Your task to perform on an android device: set an alarm Image 0: 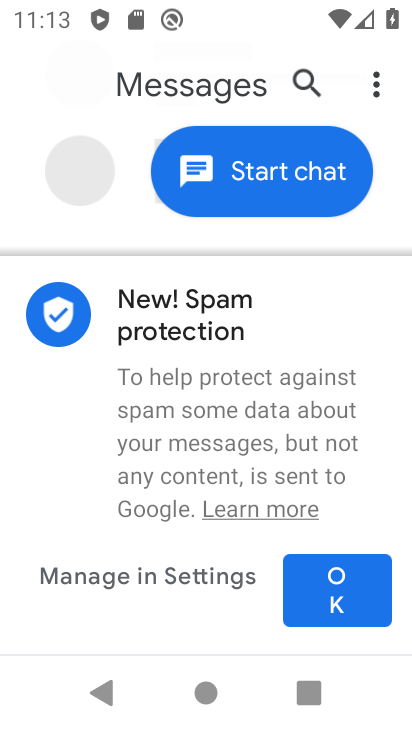
Step 0: press home button
Your task to perform on an android device: set an alarm Image 1: 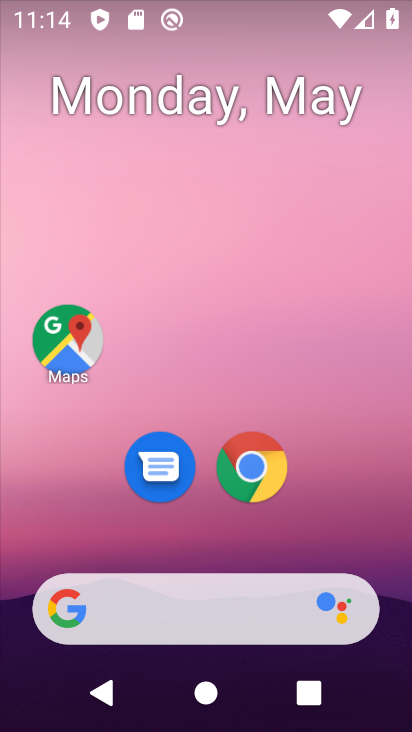
Step 1: drag from (370, 516) to (360, 82)
Your task to perform on an android device: set an alarm Image 2: 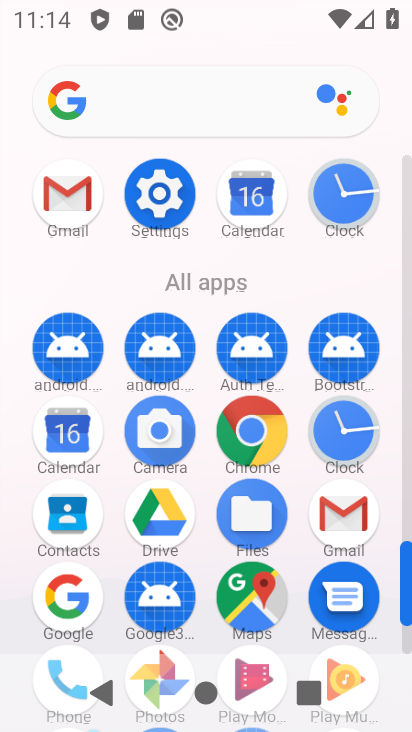
Step 2: click (366, 401)
Your task to perform on an android device: set an alarm Image 3: 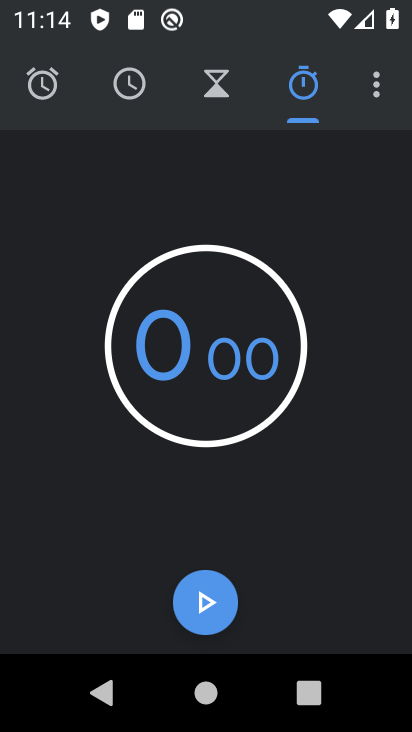
Step 3: click (57, 96)
Your task to perform on an android device: set an alarm Image 4: 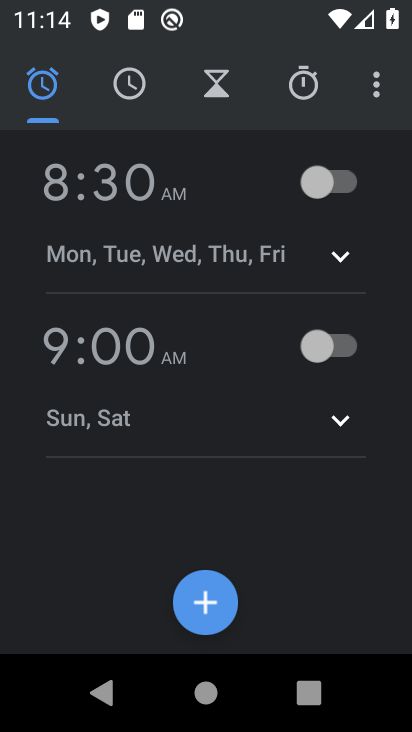
Step 4: click (105, 226)
Your task to perform on an android device: set an alarm Image 5: 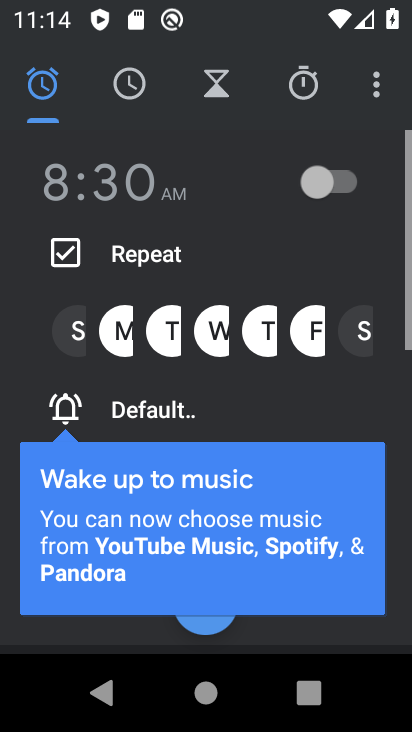
Step 5: click (348, 183)
Your task to perform on an android device: set an alarm Image 6: 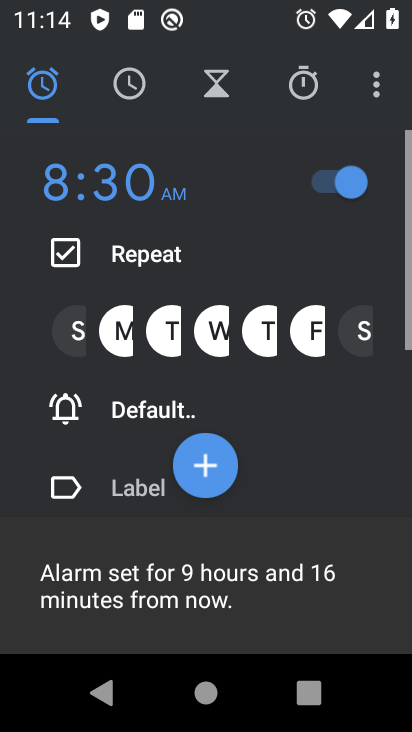
Step 6: task complete